Your task to perform on an android device: See recent photos Image 0: 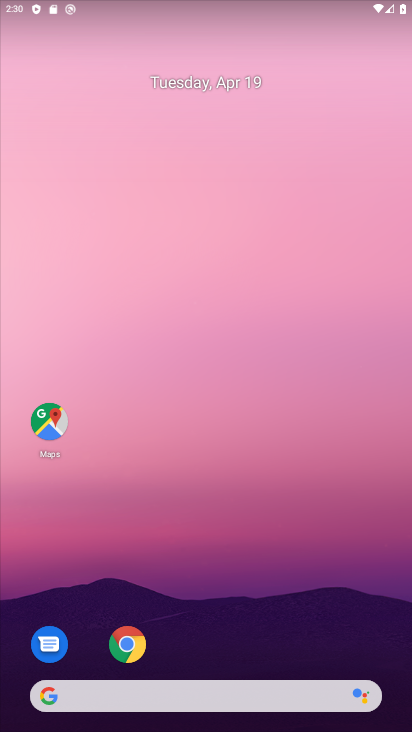
Step 0: drag from (231, 411) to (240, 167)
Your task to perform on an android device: See recent photos Image 1: 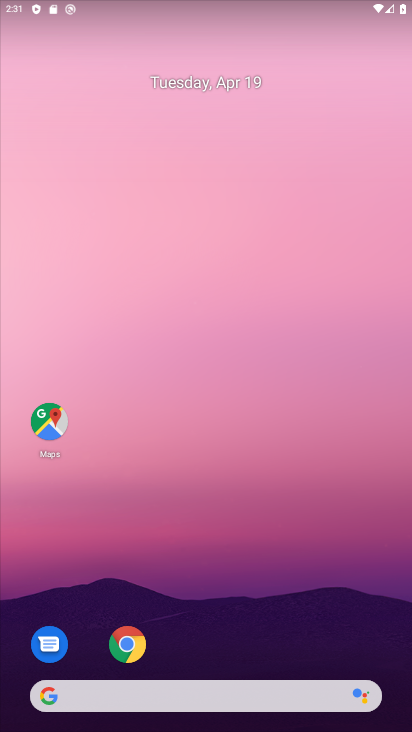
Step 1: drag from (270, 514) to (234, 75)
Your task to perform on an android device: See recent photos Image 2: 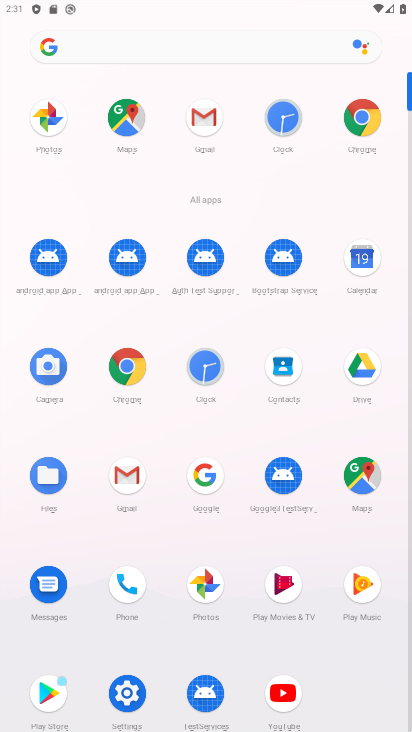
Step 2: click (212, 582)
Your task to perform on an android device: See recent photos Image 3: 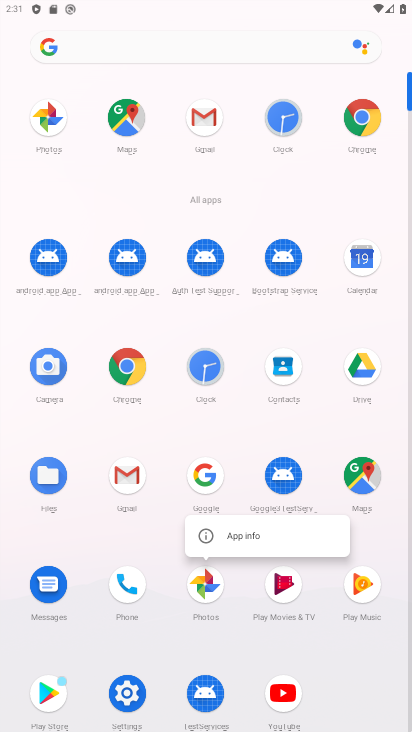
Step 3: click (214, 581)
Your task to perform on an android device: See recent photos Image 4: 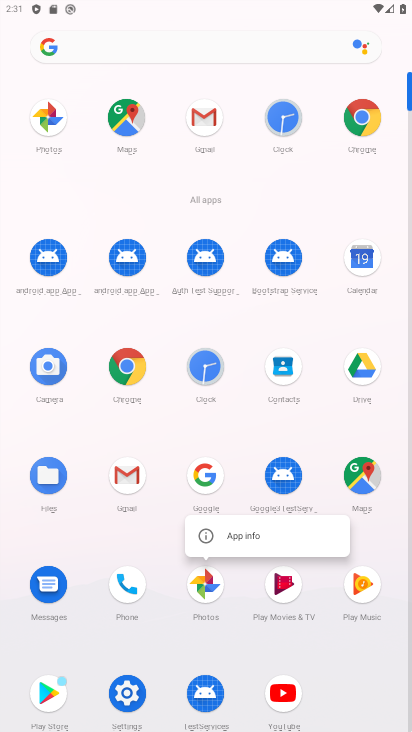
Step 4: click (197, 583)
Your task to perform on an android device: See recent photos Image 5: 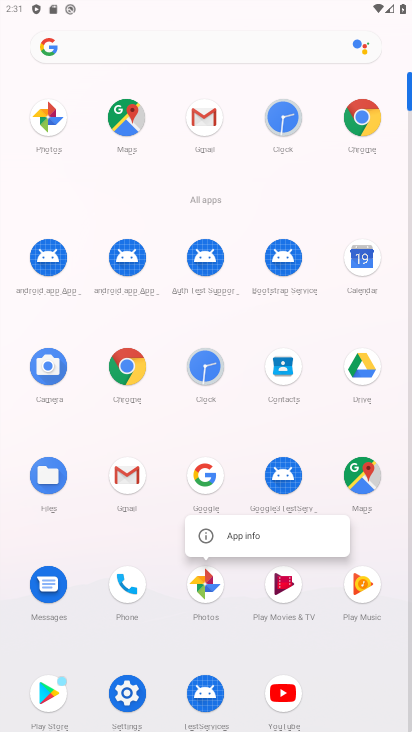
Step 5: click (199, 583)
Your task to perform on an android device: See recent photos Image 6: 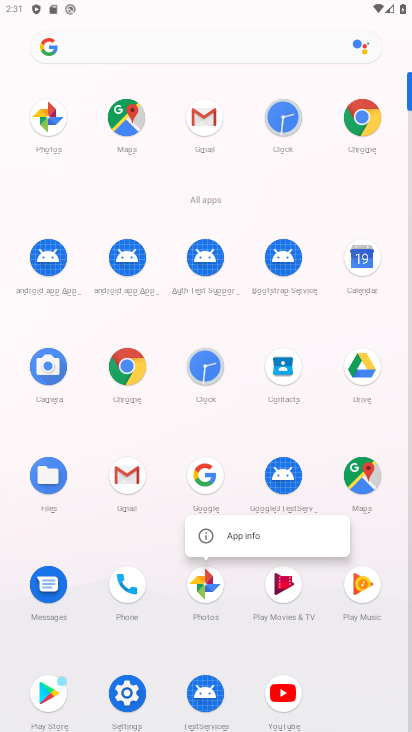
Step 6: click (208, 588)
Your task to perform on an android device: See recent photos Image 7: 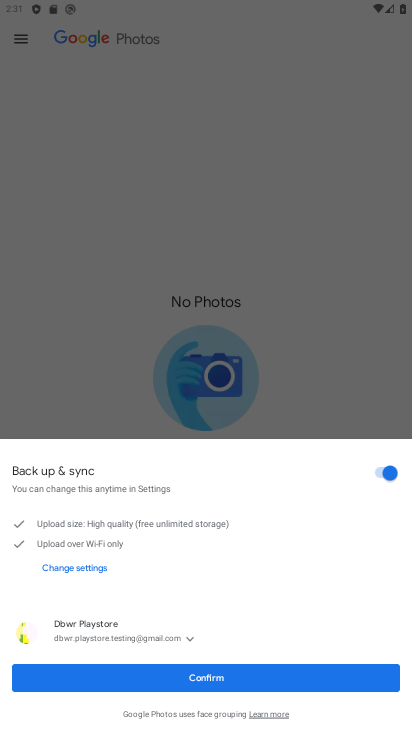
Step 7: click (294, 673)
Your task to perform on an android device: See recent photos Image 8: 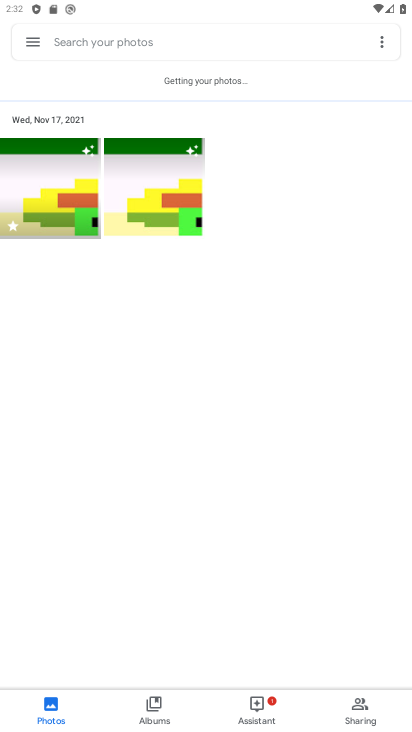
Step 8: task complete